Your task to perform on an android device: turn pop-ups on in chrome Image 0: 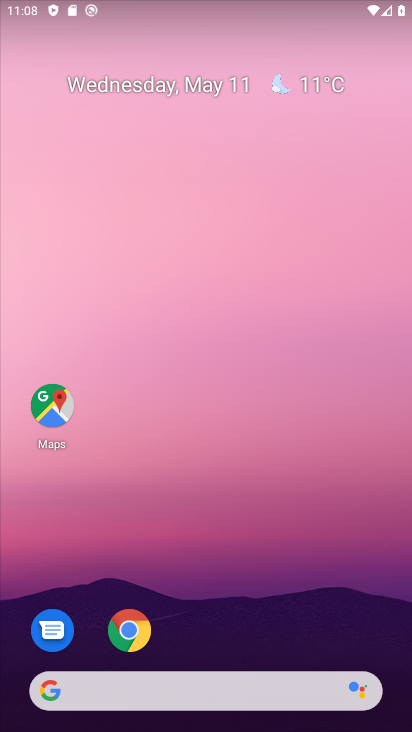
Step 0: drag from (183, 613) to (214, 241)
Your task to perform on an android device: turn pop-ups on in chrome Image 1: 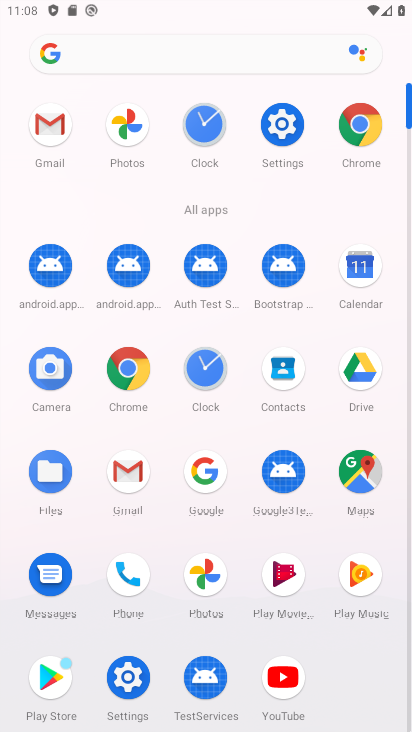
Step 1: click (125, 366)
Your task to perform on an android device: turn pop-ups on in chrome Image 2: 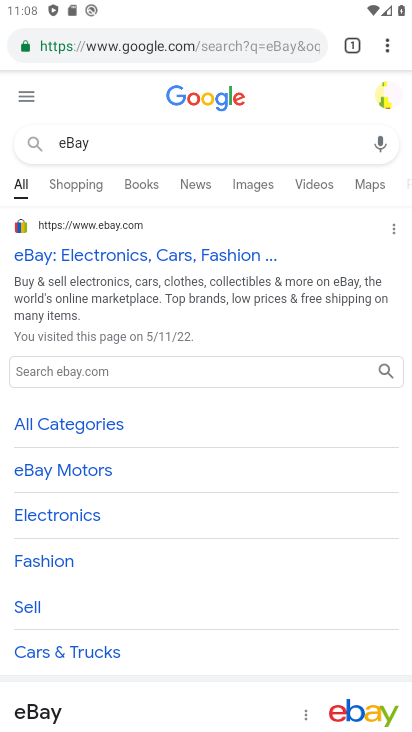
Step 2: click (389, 42)
Your task to perform on an android device: turn pop-ups on in chrome Image 3: 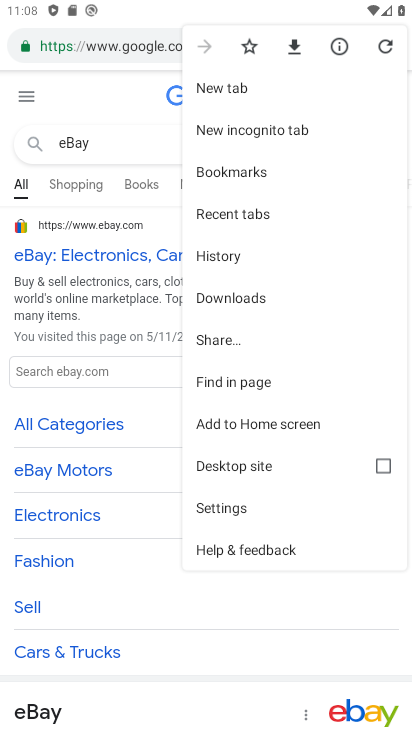
Step 3: click (248, 514)
Your task to perform on an android device: turn pop-ups on in chrome Image 4: 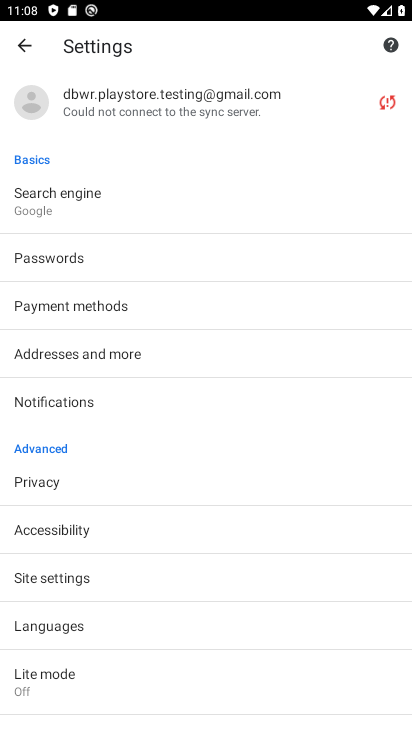
Step 4: click (61, 582)
Your task to perform on an android device: turn pop-ups on in chrome Image 5: 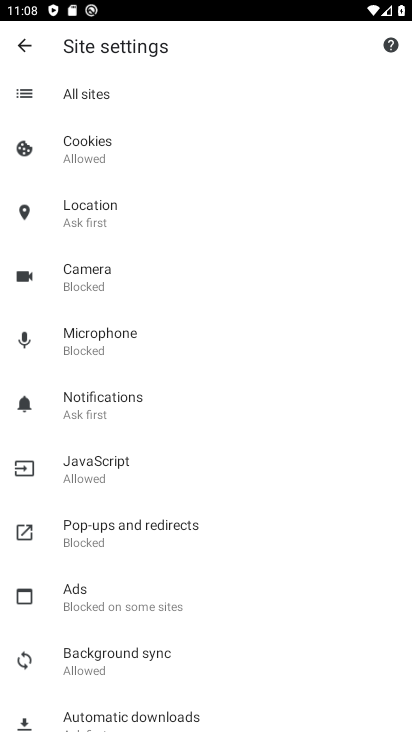
Step 5: click (127, 534)
Your task to perform on an android device: turn pop-ups on in chrome Image 6: 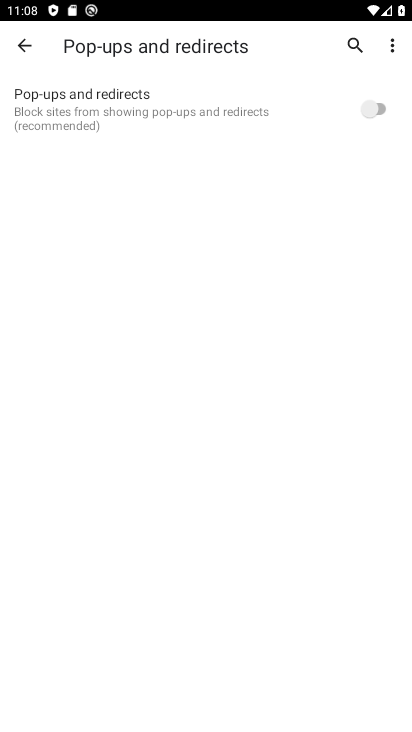
Step 6: click (368, 106)
Your task to perform on an android device: turn pop-ups on in chrome Image 7: 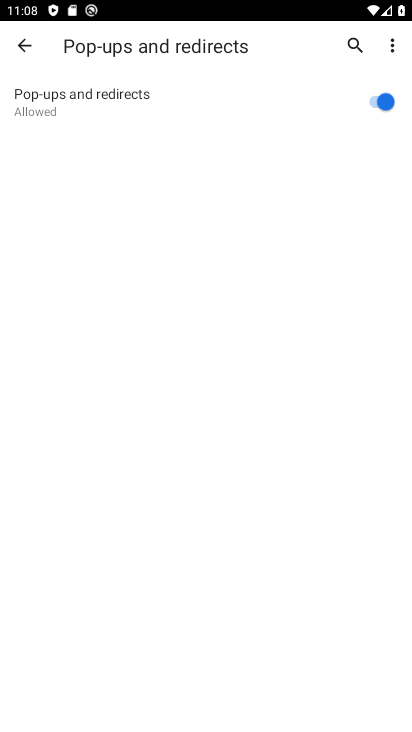
Step 7: task complete